Your task to perform on an android device: toggle location history Image 0: 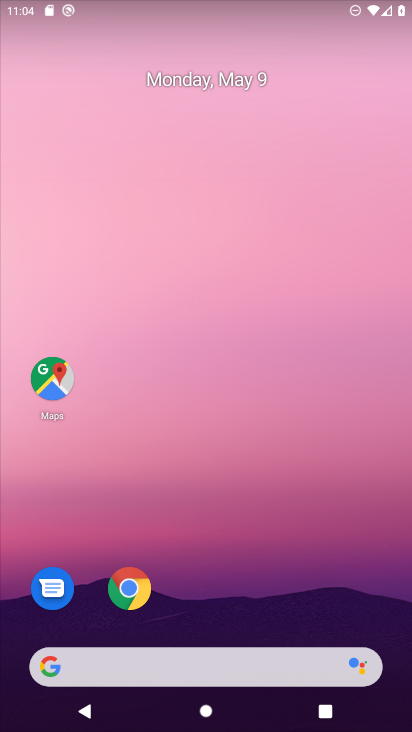
Step 0: drag from (294, 584) to (192, 170)
Your task to perform on an android device: toggle location history Image 1: 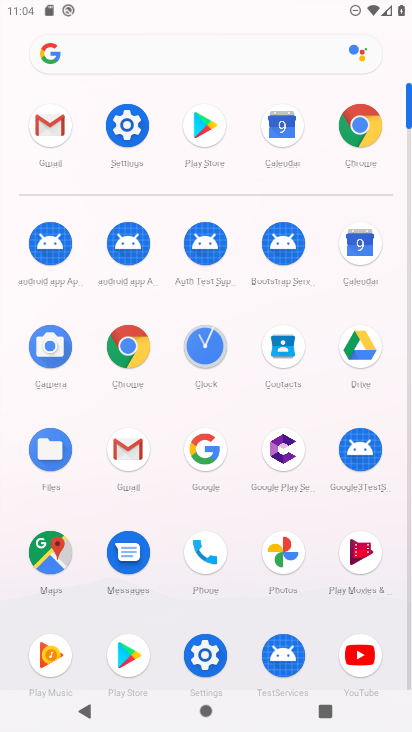
Step 1: click (130, 147)
Your task to perform on an android device: toggle location history Image 2: 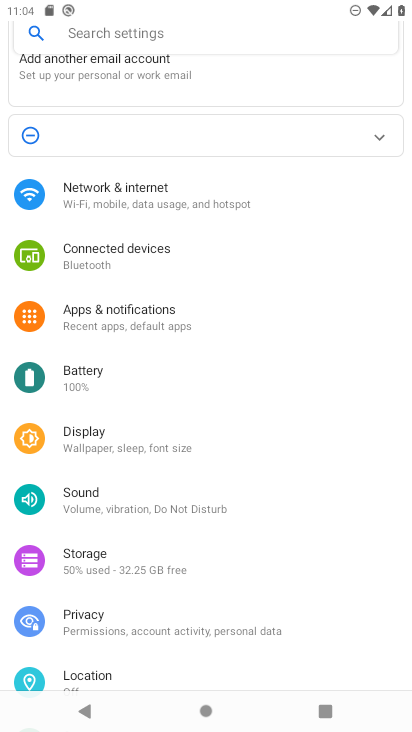
Step 2: click (120, 675)
Your task to perform on an android device: toggle location history Image 3: 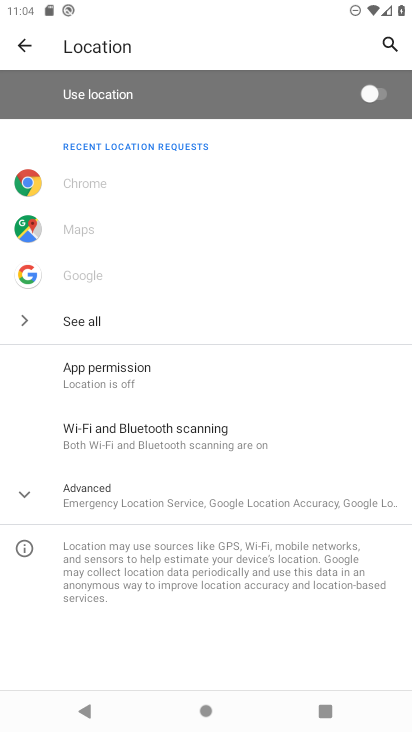
Step 3: click (143, 483)
Your task to perform on an android device: toggle location history Image 4: 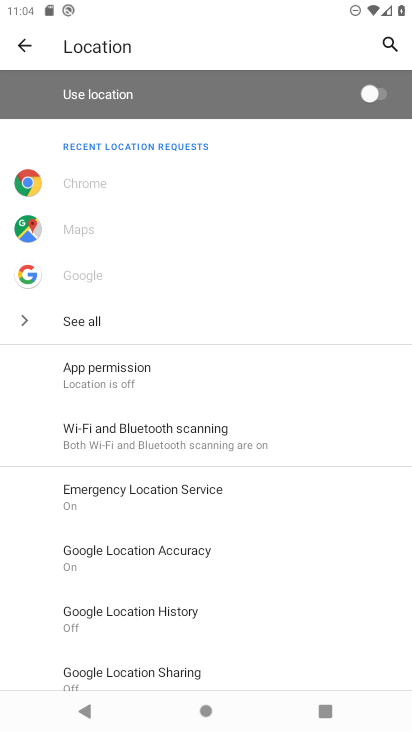
Step 4: click (197, 602)
Your task to perform on an android device: toggle location history Image 5: 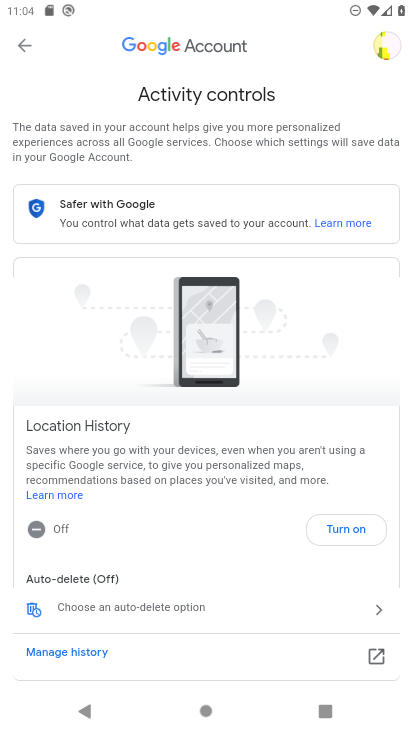
Step 5: click (346, 529)
Your task to perform on an android device: toggle location history Image 6: 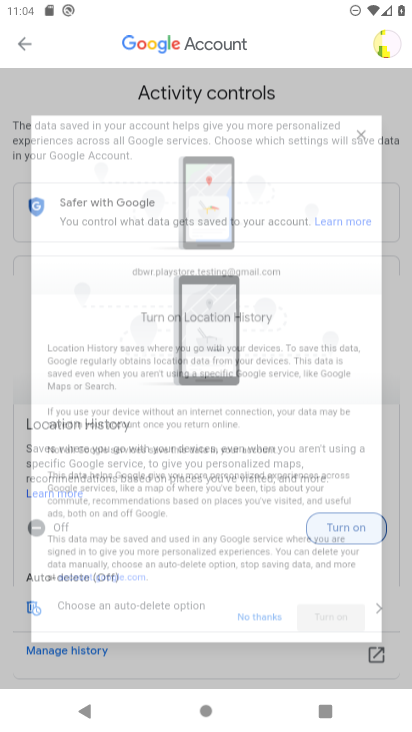
Step 6: click (346, 529)
Your task to perform on an android device: toggle location history Image 7: 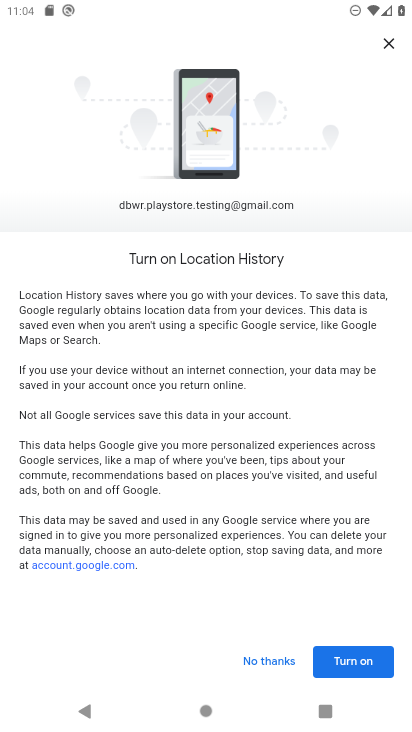
Step 7: click (333, 657)
Your task to perform on an android device: toggle location history Image 8: 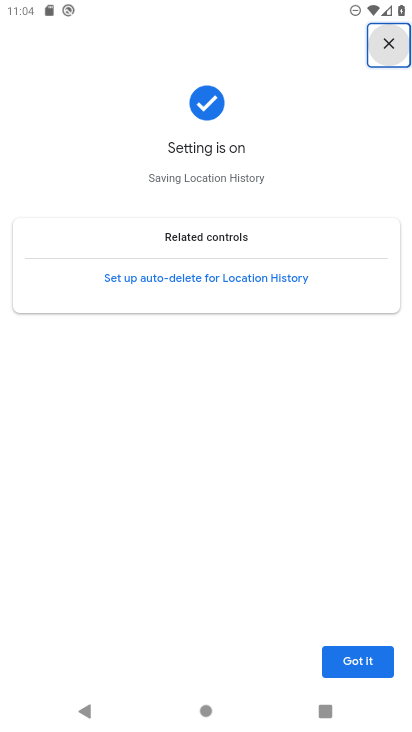
Step 8: click (333, 657)
Your task to perform on an android device: toggle location history Image 9: 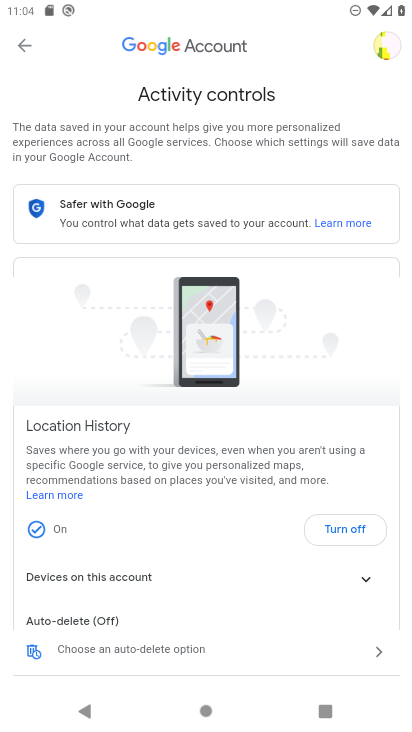
Step 9: task complete